Your task to perform on an android device: Go to sound settings Image 0: 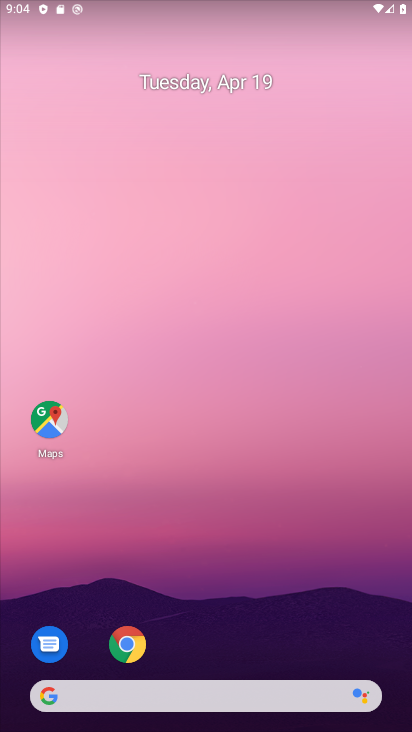
Step 0: drag from (210, 647) to (206, 0)
Your task to perform on an android device: Go to sound settings Image 1: 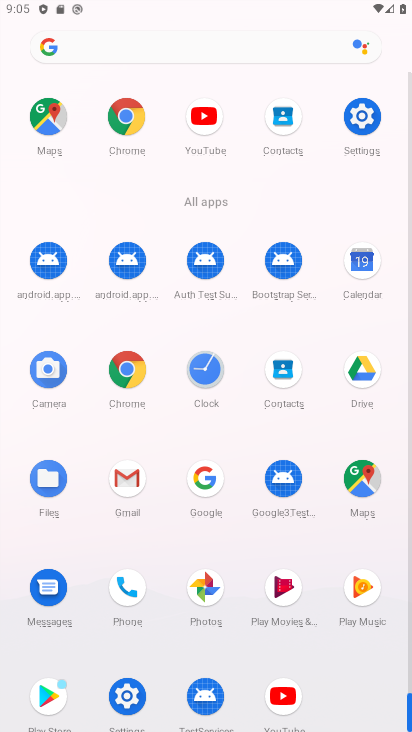
Step 1: click (368, 129)
Your task to perform on an android device: Go to sound settings Image 2: 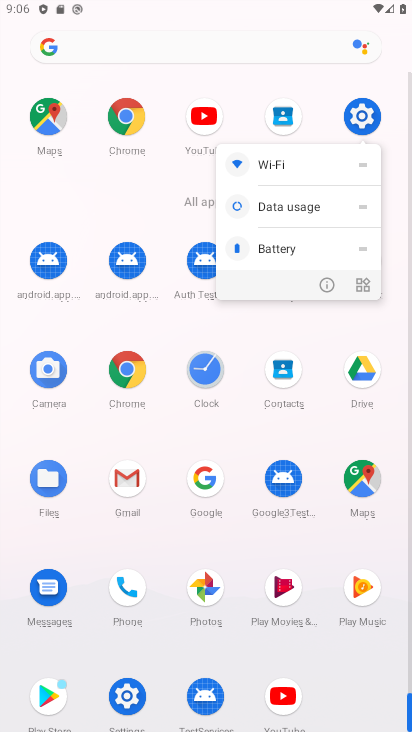
Step 2: click (55, 212)
Your task to perform on an android device: Go to sound settings Image 3: 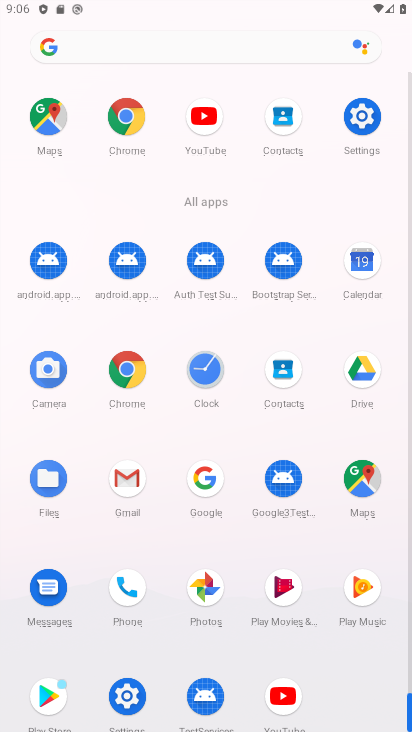
Step 3: click (128, 691)
Your task to perform on an android device: Go to sound settings Image 4: 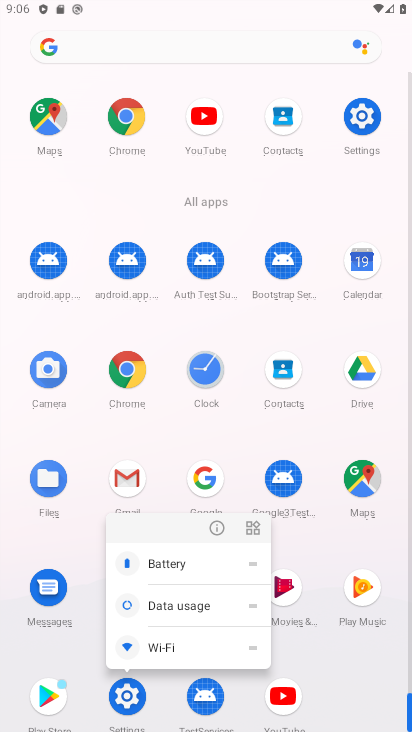
Step 4: click (138, 710)
Your task to perform on an android device: Go to sound settings Image 5: 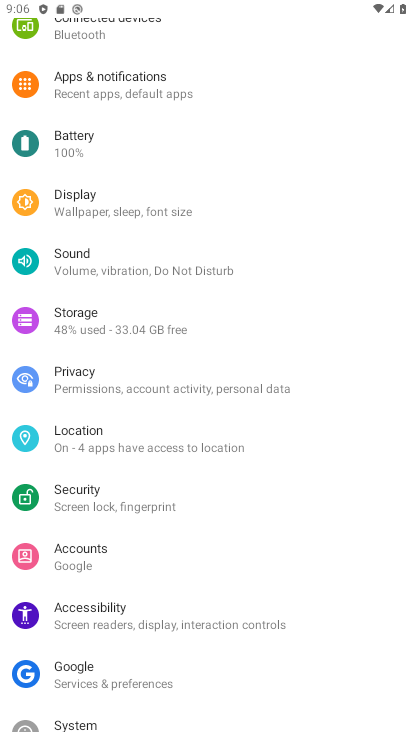
Step 5: click (115, 270)
Your task to perform on an android device: Go to sound settings Image 6: 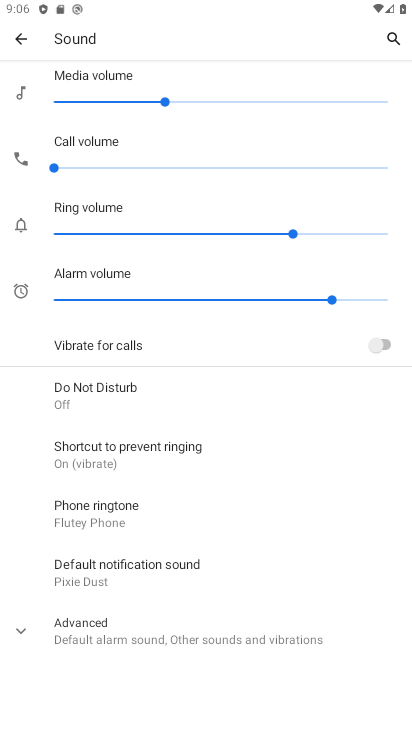
Step 6: task complete